Your task to perform on an android device: Open Google Maps Image 0: 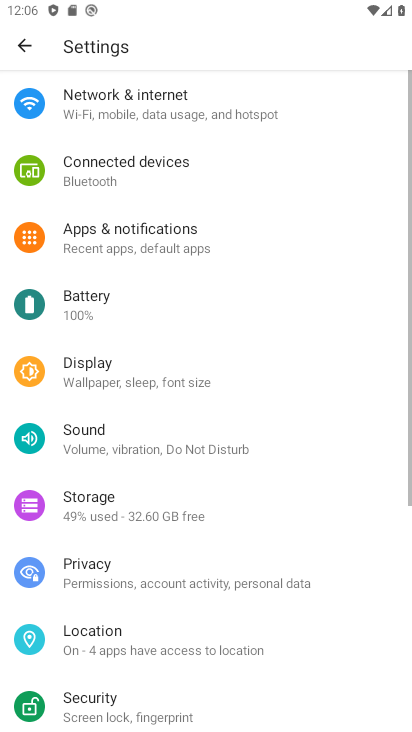
Step 0: press home button
Your task to perform on an android device: Open Google Maps Image 1: 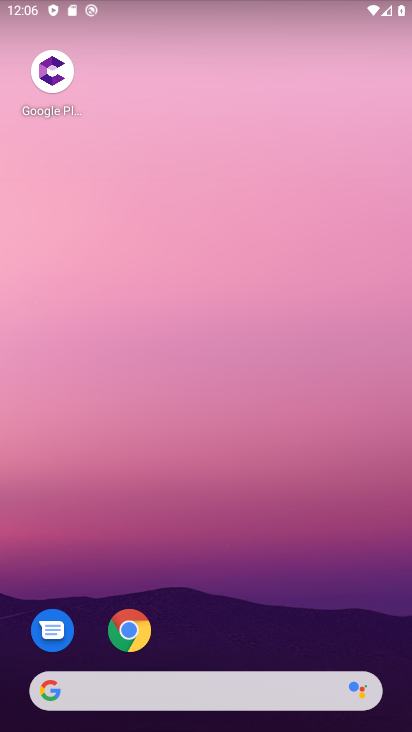
Step 1: drag from (57, 409) to (404, 389)
Your task to perform on an android device: Open Google Maps Image 2: 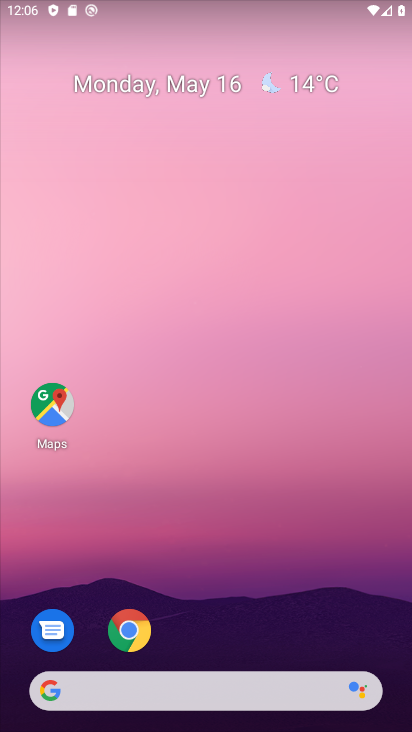
Step 2: click (45, 396)
Your task to perform on an android device: Open Google Maps Image 3: 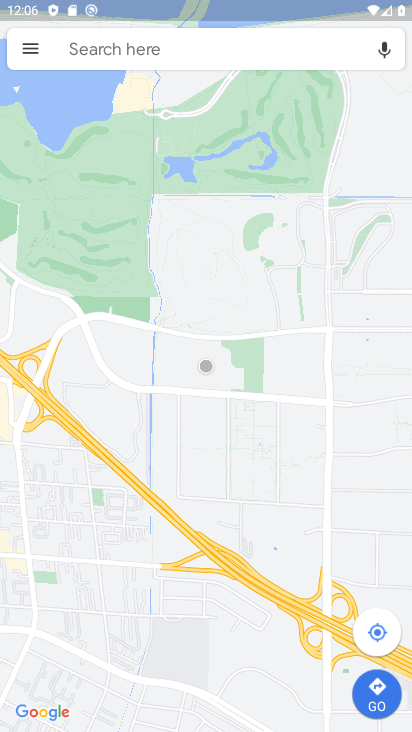
Step 3: task complete